Your task to perform on an android device: When is my next meeting? Image 0: 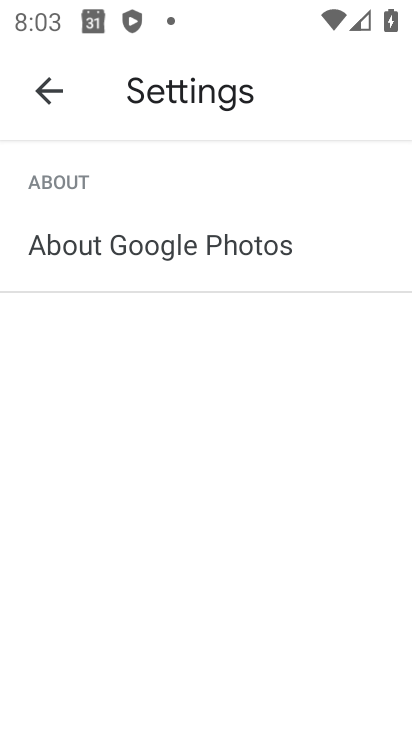
Step 0: press home button
Your task to perform on an android device: When is my next meeting? Image 1: 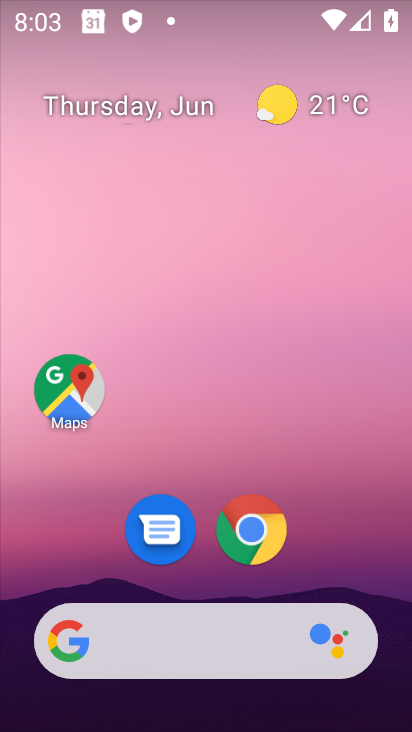
Step 1: drag from (405, 687) to (355, 95)
Your task to perform on an android device: When is my next meeting? Image 2: 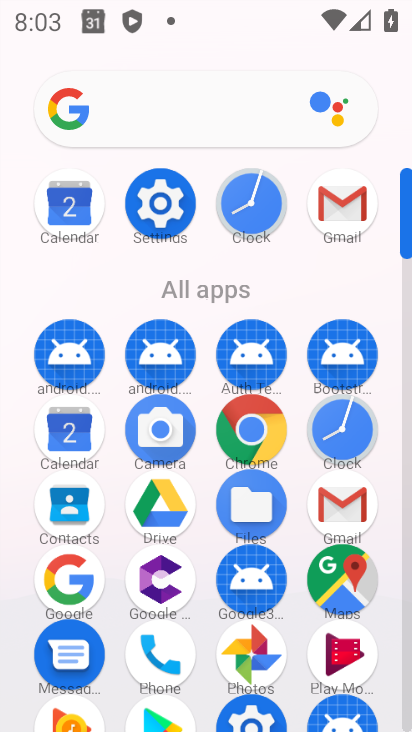
Step 2: click (65, 435)
Your task to perform on an android device: When is my next meeting? Image 3: 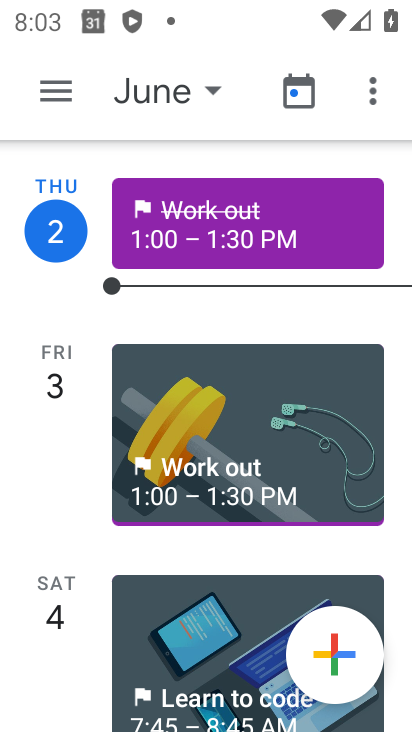
Step 3: click (64, 92)
Your task to perform on an android device: When is my next meeting? Image 4: 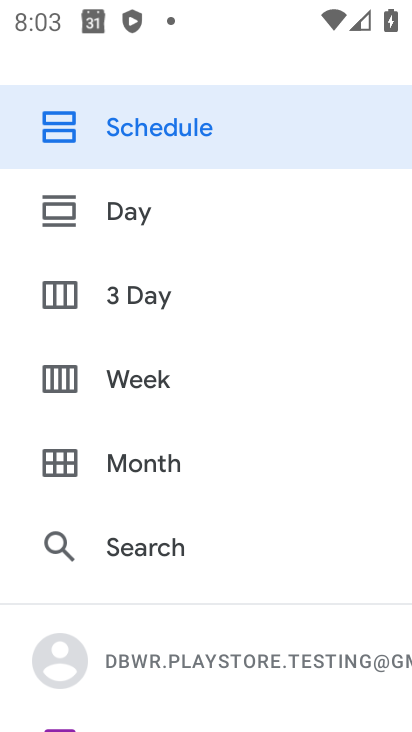
Step 4: click (138, 131)
Your task to perform on an android device: When is my next meeting? Image 5: 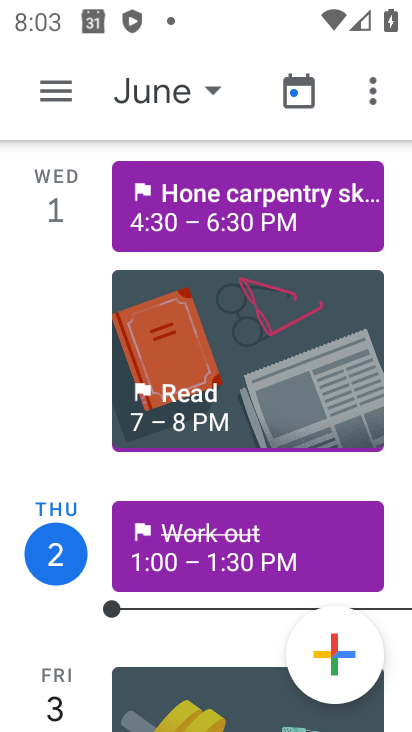
Step 5: task complete